Your task to perform on an android device: Open eBay Image 0: 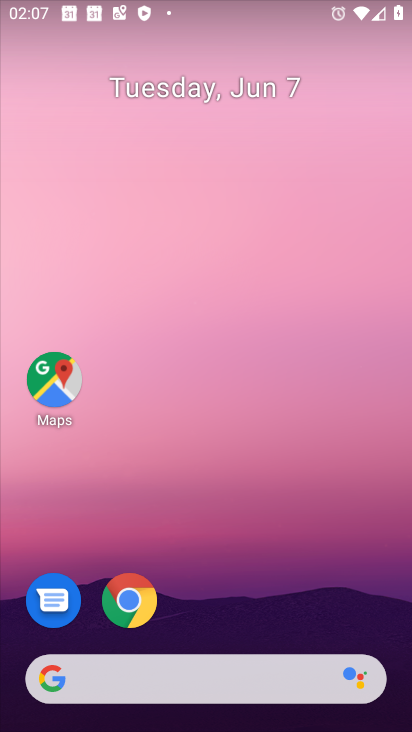
Step 0: click (131, 611)
Your task to perform on an android device: Open eBay Image 1: 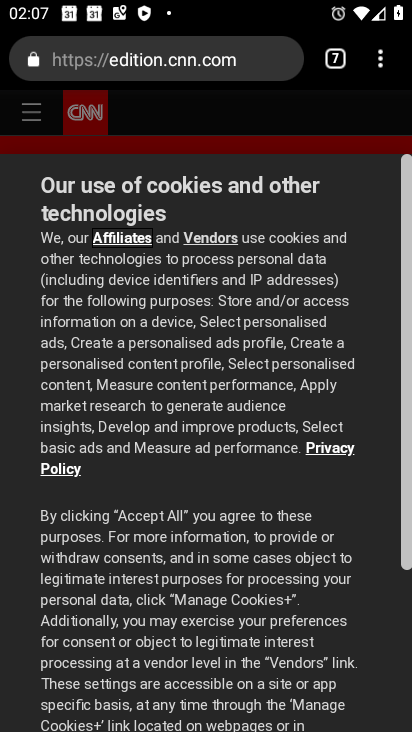
Step 1: click (380, 66)
Your task to perform on an android device: Open eBay Image 2: 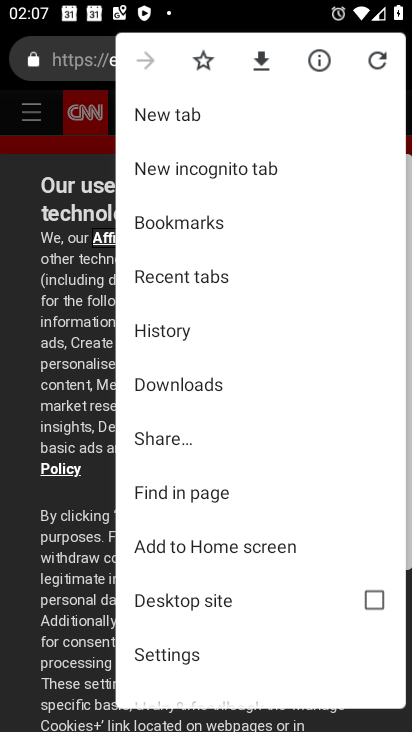
Step 2: click (177, 116)
Your task to perform on an android device: Open eBay Image 3: 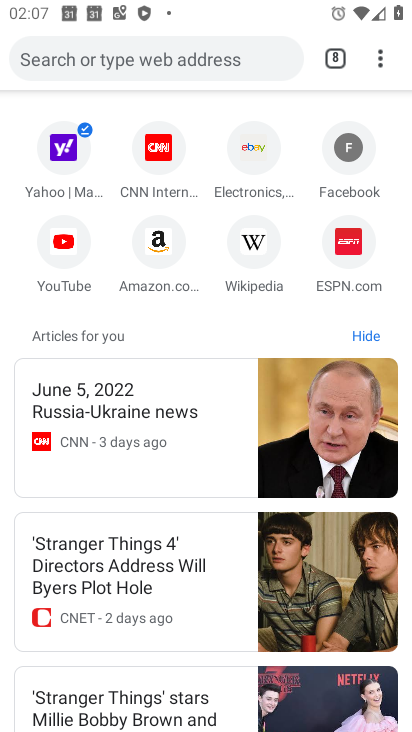
Step 3: click (189, 62)
Your task to perform on an android device: Open eBay Image 4: 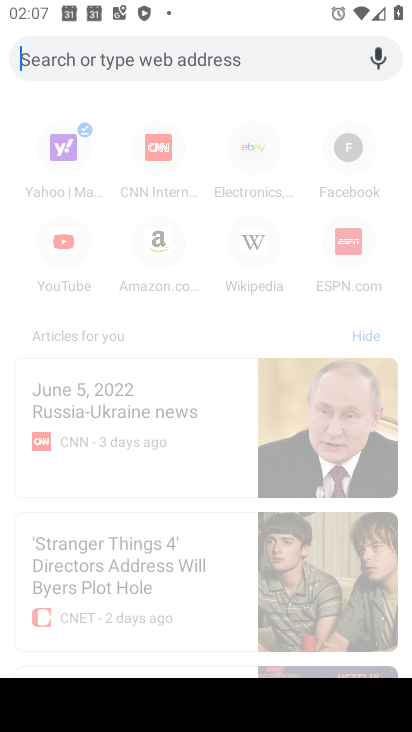
Step 4: type "eBay"
Your task to perform on an android device: Open eBay Image 5: 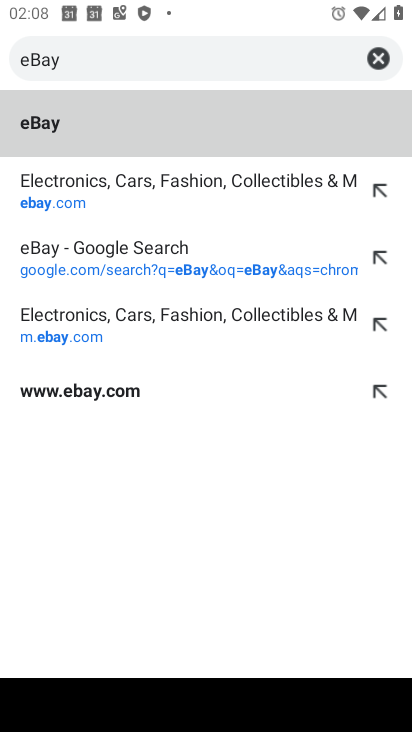
Step 5: click (71, 141)
Your task to perform on an android device: Open eBay Image 6: 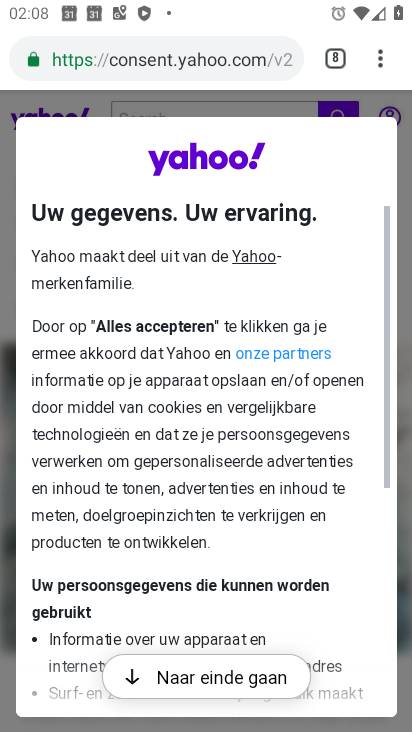
Step 6: drag from (259, 608) to (195, 192)
Your task to perform on an android device: Open eBay Image 7: 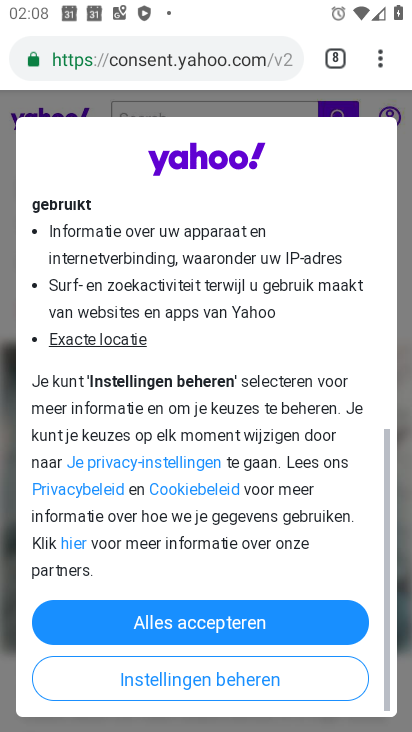
Step 7: click (203, 621)
Your task to perform on an android device: Open eBay Image 8: 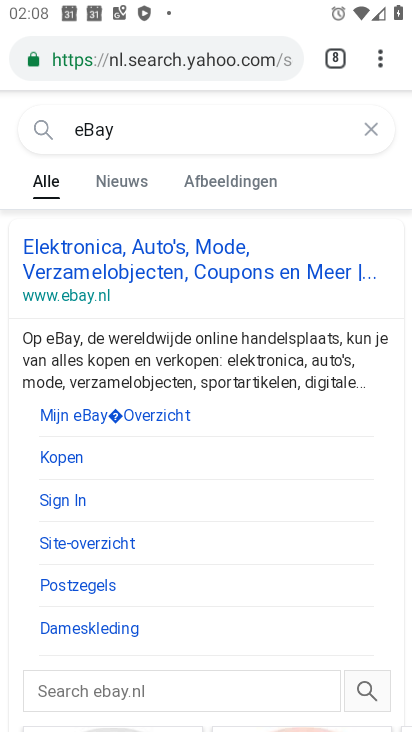
Step 8: click (127, 260)
Your task to perform on an android device: Open eBay Image 9: 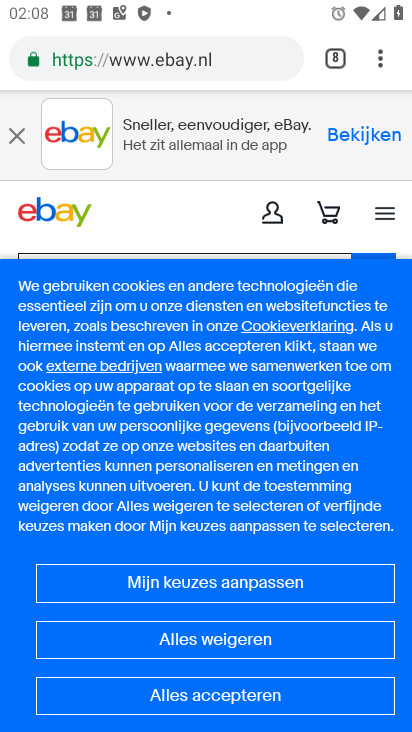
Step 9: task complete